Your task to perform on an android device: Search for Italian restaurants on Maps Image 0: 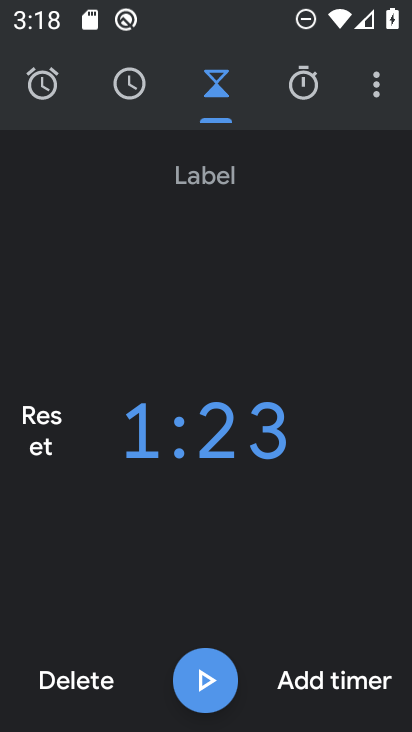
Step 0: press home button
Your task to perform on an android device: Search for Italian restaurants on Maps Image 1: 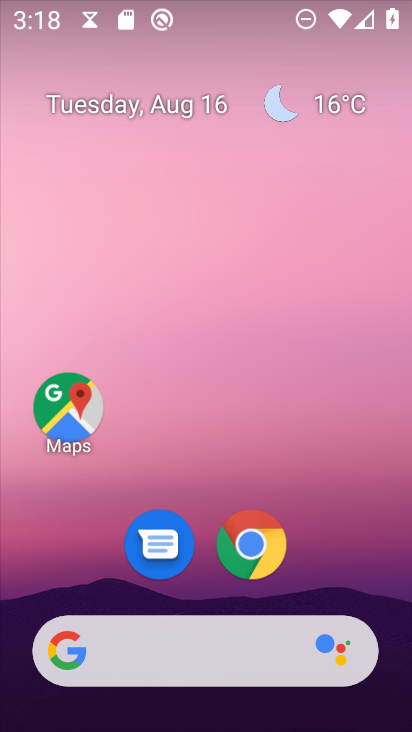
Step 1: click (65, 411)
Your task to perform on an android device: Search for Italian restaurants on Maps Image 2: 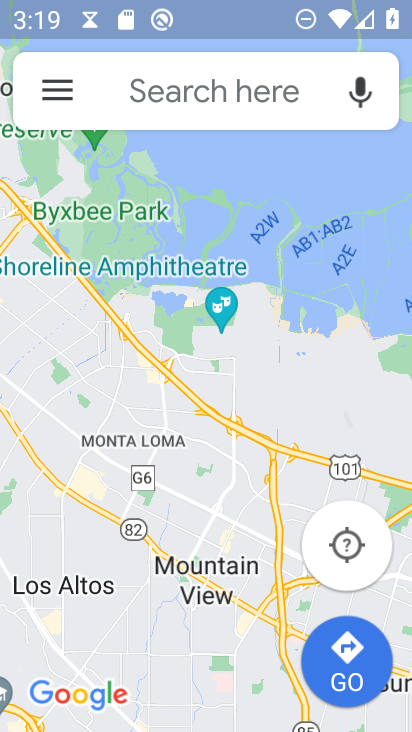
Step 2: click (219, 86)
Your task to perform on an android device: Search for Italian restaurants on Maps Image 3: 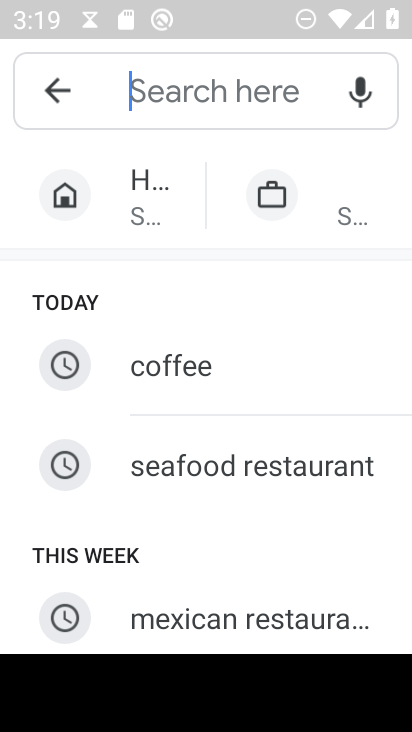
Step 3: type "Italian restaurants"
Your task to perform on an android device: Search for Italian restaurants on Maps Image 4: 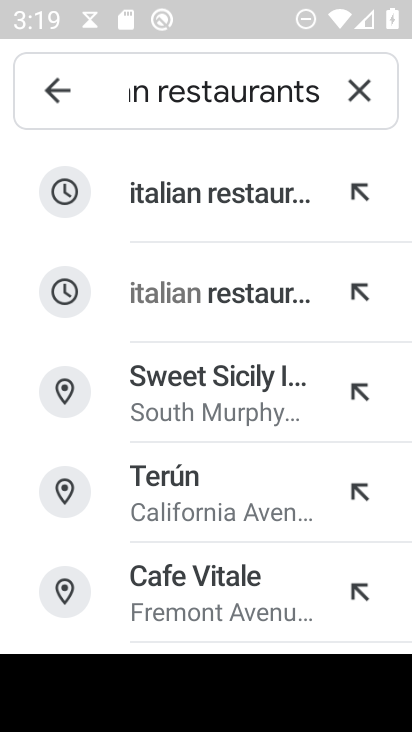
Step 4: click (224, 197)
Your task to perform on an android device: Search for Italian restaurants on Maps Image 5: 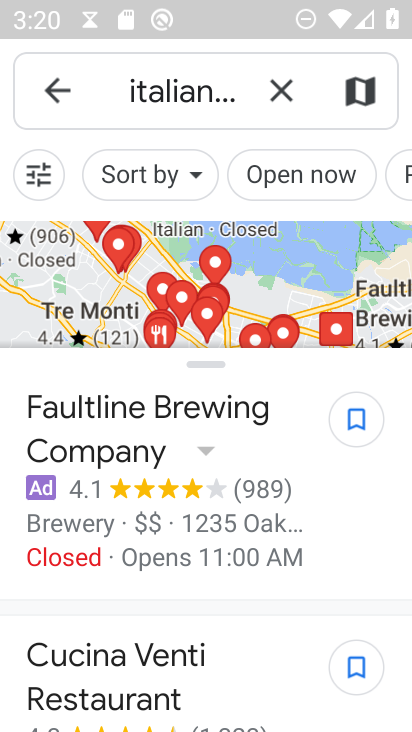
Step 5: task complete